Your task to perform on an android device: toggle translation in the chrome app Image 0: 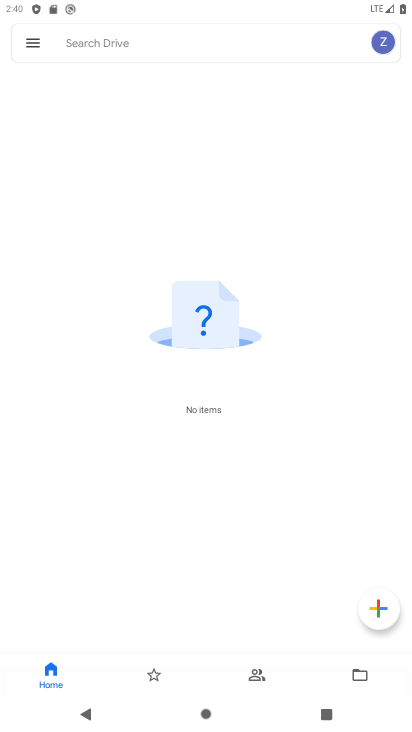
Step 0: press home button
Your task to perform on an android device: toggle translation in the chrome app Image 1: 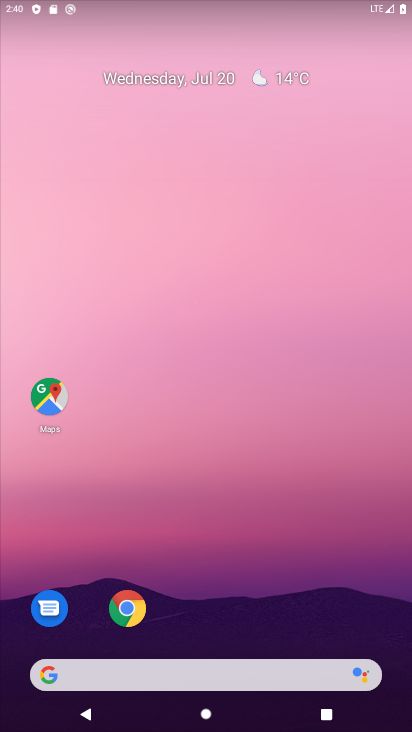
Step 1: click (136, 623)
Your task to perform on an android device: toggle translation in the chrome app Image 2: 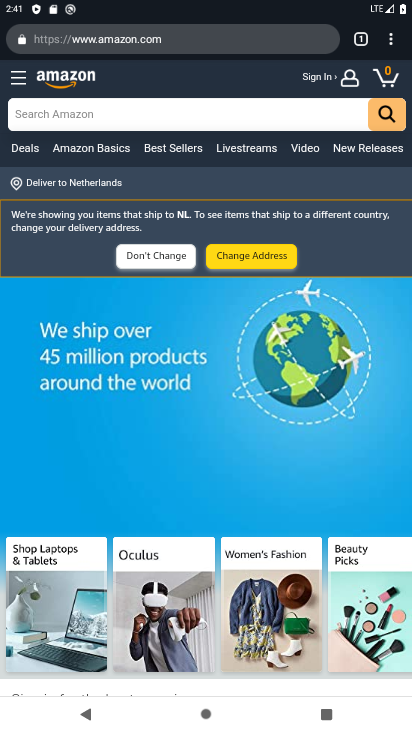
Step 2: click (392, 42)
Your task to perform on an android device: toggle translation in the chrome app Image 3: 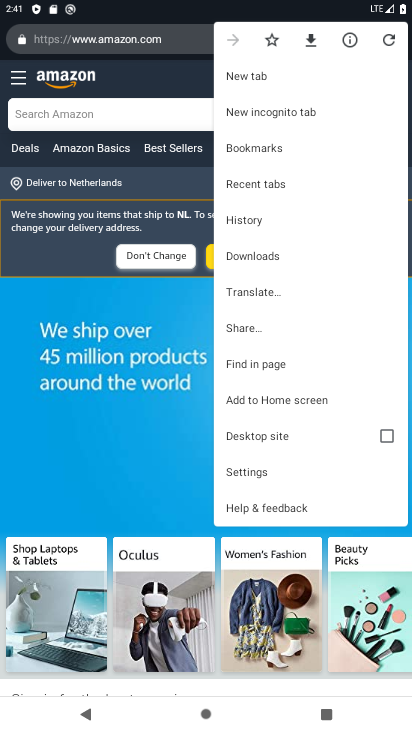
Step 3: click (250, 467)
Your task to perform on an android device: toggle translation in the chrome app Image 4: 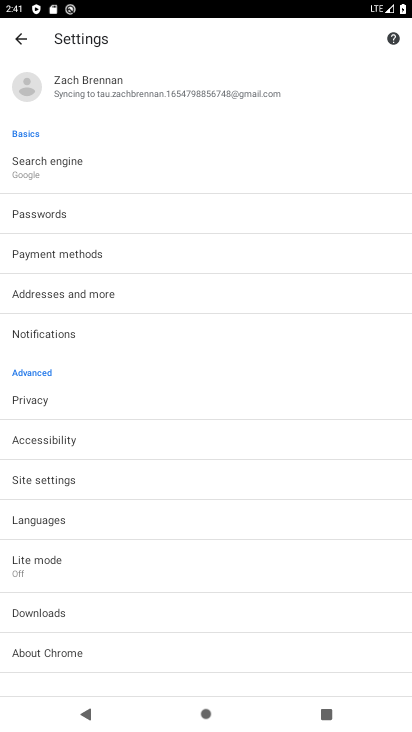
Step 4: click (28, 548)
Your task to perform on an android device: toggle translation in the chrome app Image 5: 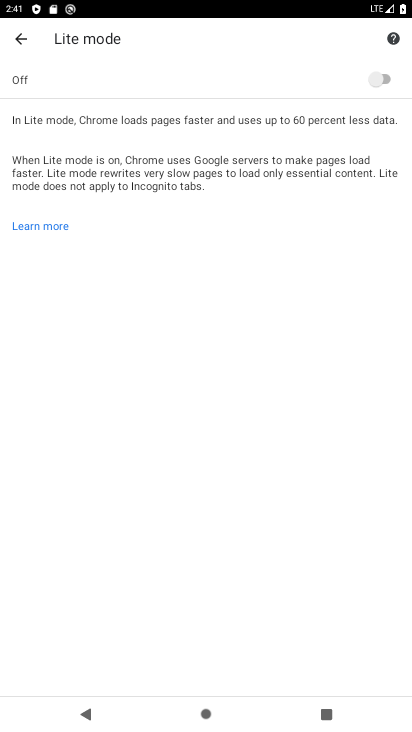
Step 5: click (15, 26)
Your task to perform on an android device: toggle translation in the chrome app Image 6: 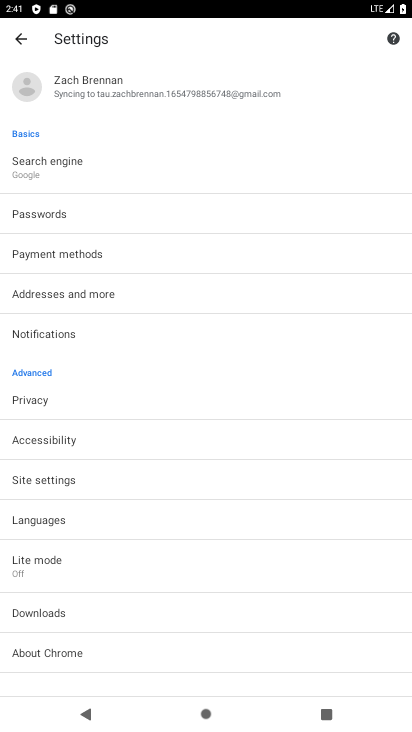
Step 6: click (147, 518)
Your task to perform on an android device: toggle translation in the chrome app Image 7: 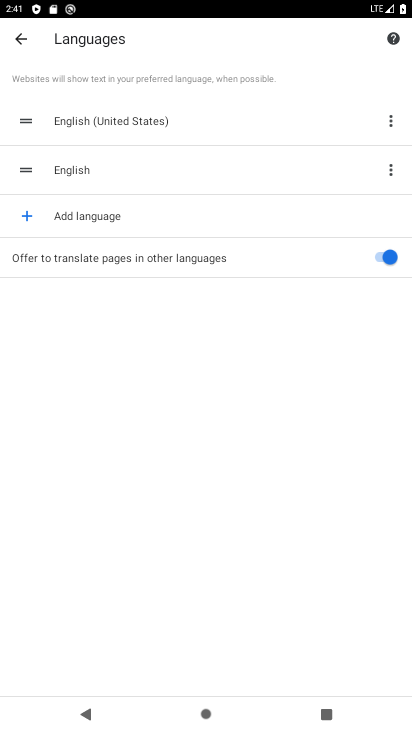
Step 7: click (382, 266)
Your task to perform on an android device: toggle translation in the chrome app Image 8: 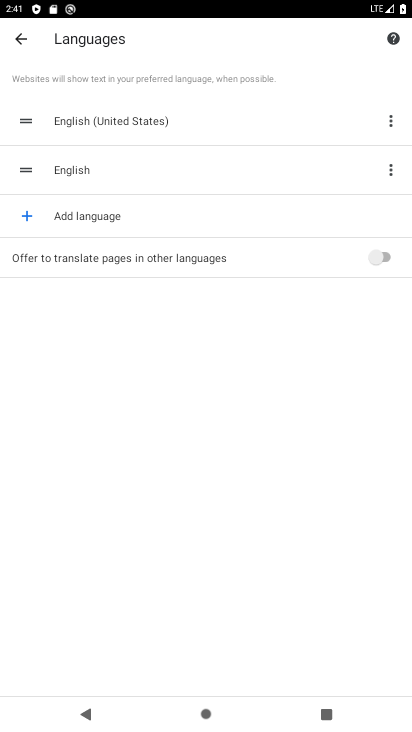
Step 8: task complete